Your task to perform on an android device: clear history in the chrome app Image 0: 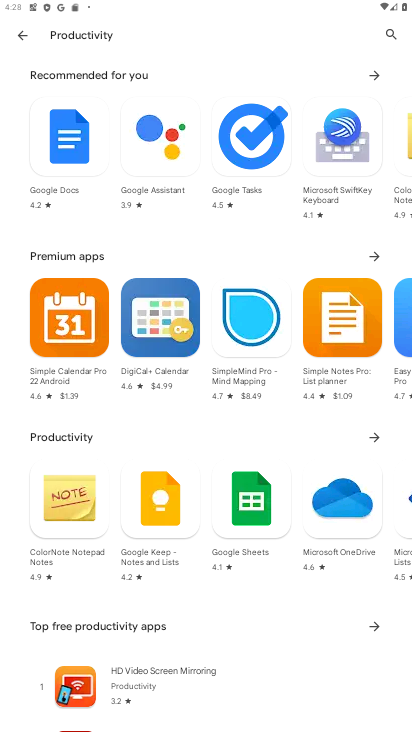
Step 0: press home button
Your task to perform on an android device: clear history in the chrome app Image 1: 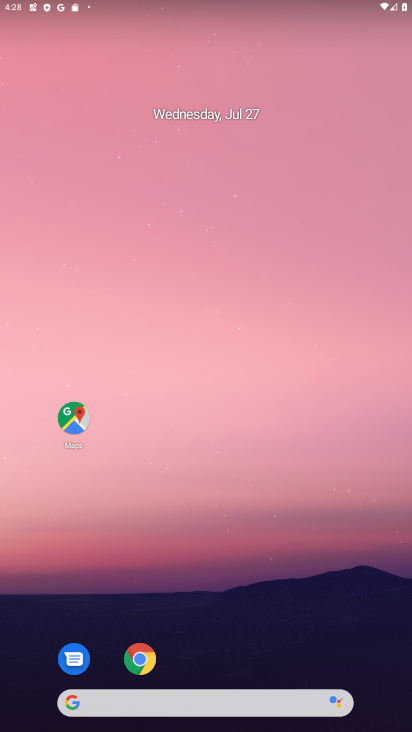
Step 1: click (147, 653)
Your task to perform on an android device: clear history in the chrome app Image 2: 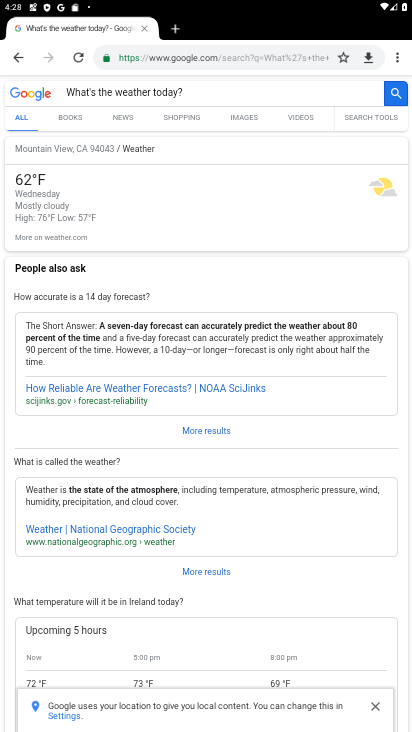
Step 2: click (398, 52)
Your task to perform on an android device: clear history in the chrome app Image 3: 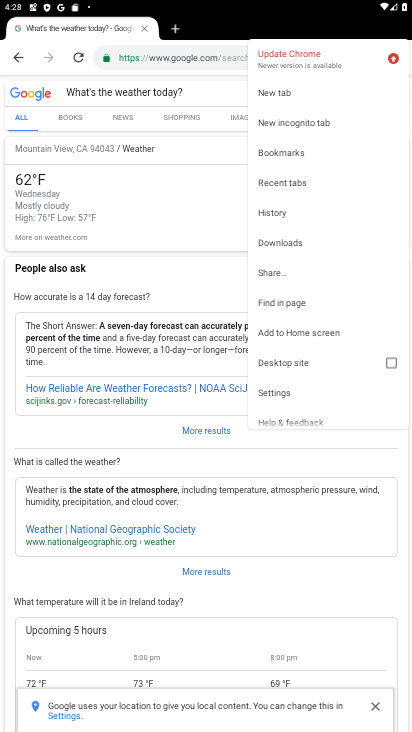
Step 3: click (277, 216)
Your task to perform on an android device: clear history in the chrome app Image 4: 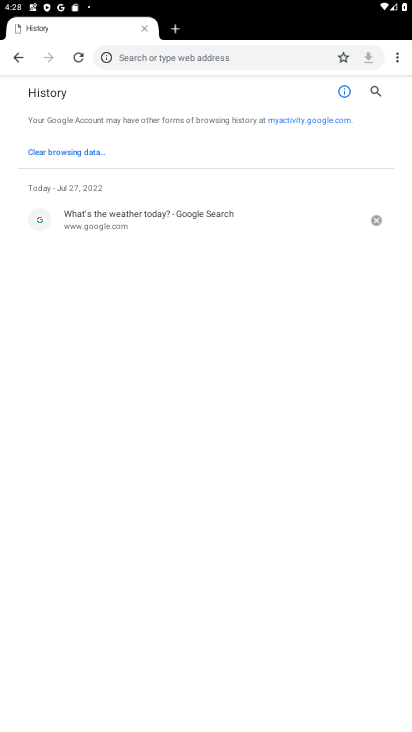
Step 4: click (92, 154)
Your task to perform on an android device: clear history in the chrome app Image 5: 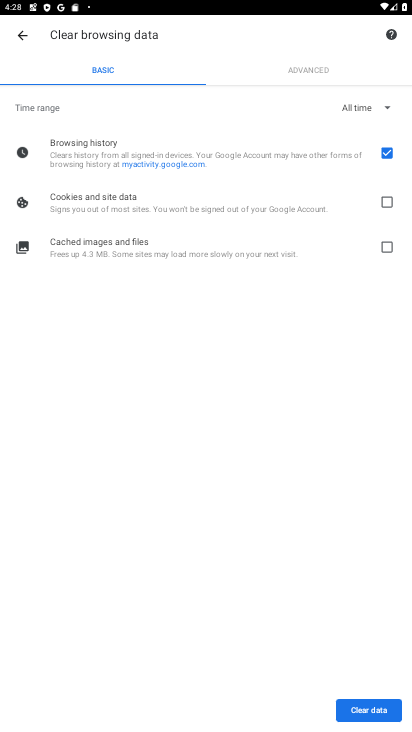
Step 5: click (384, 707)
Your task to perform on an android device: clear history in the chrome app Image 6: 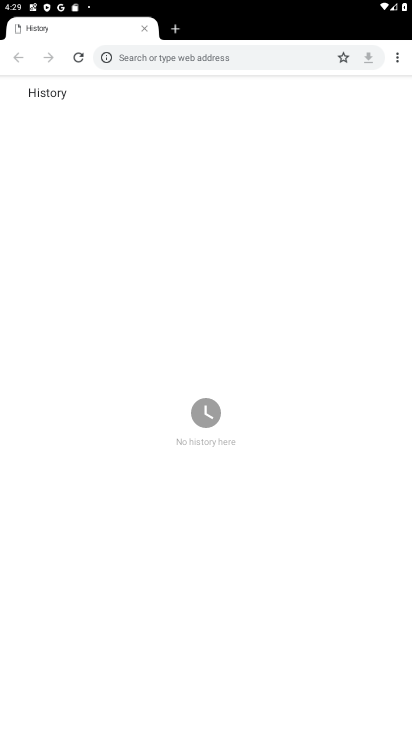
Step 6: task complete